Your task to perform on an android device: open app "Facebook" (install if not already installed) Image 0: 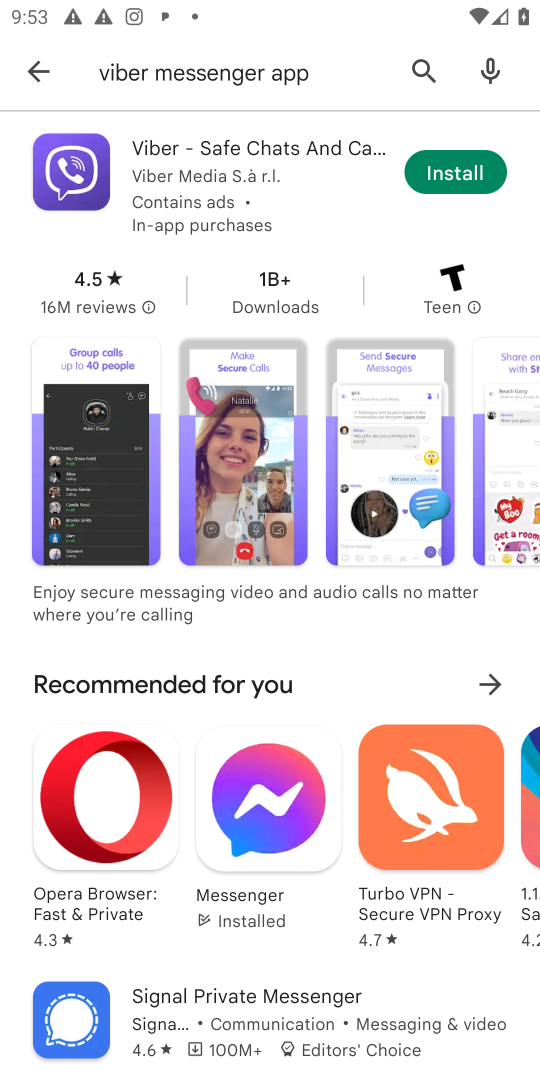
Step 0: press home button
Your task to perform on an android device: open app "Facebook" (install if not already installed) Image 1: 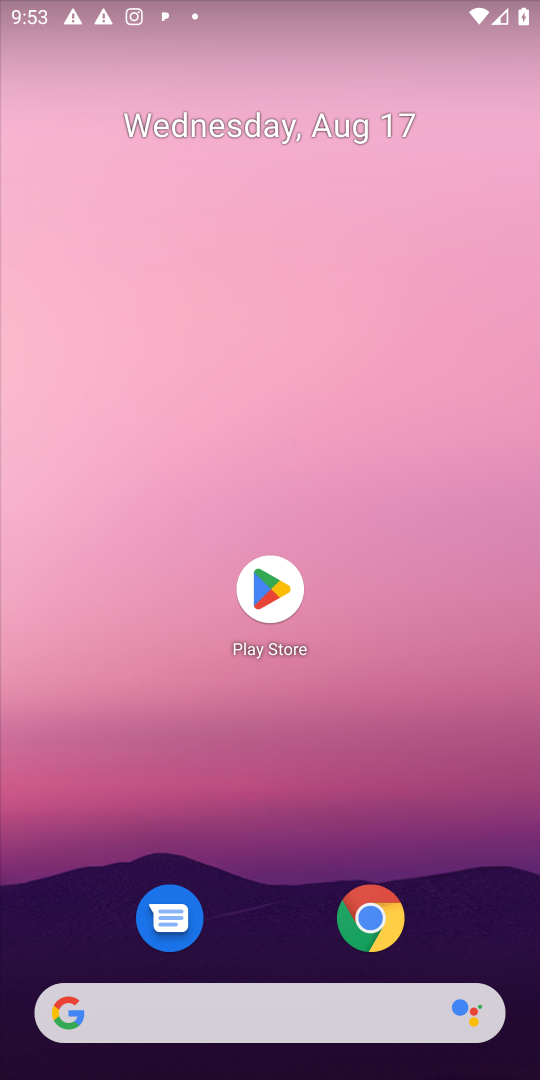
Step 1: click (273, 595)
Your task to perform on an android device: open app "Facebook" (install if not already installed) Image 2: 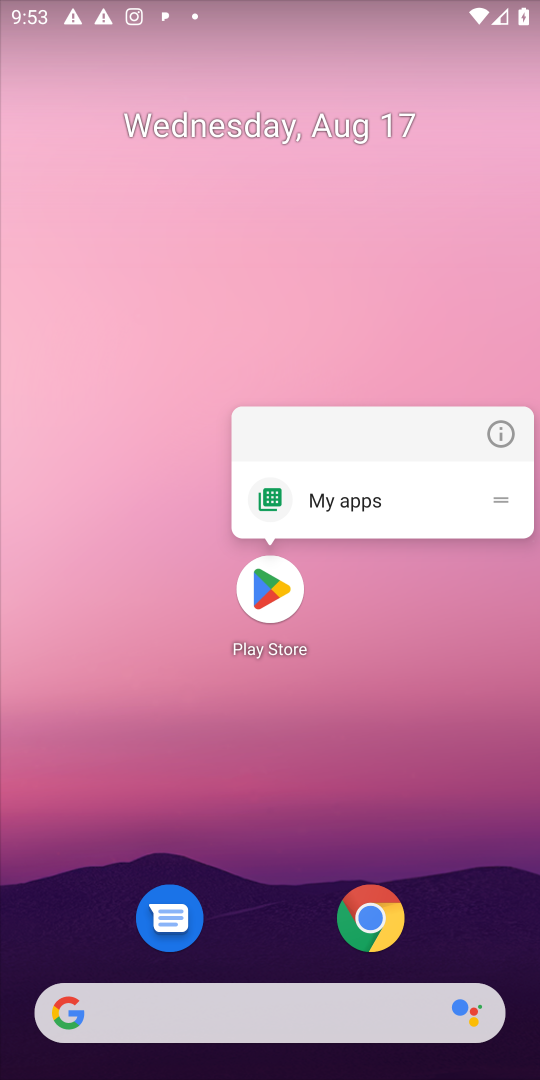
Step 2: click (272, 596)
Your task to perform on an android device: open app "Facebook" (install if not already installed) Image 3: 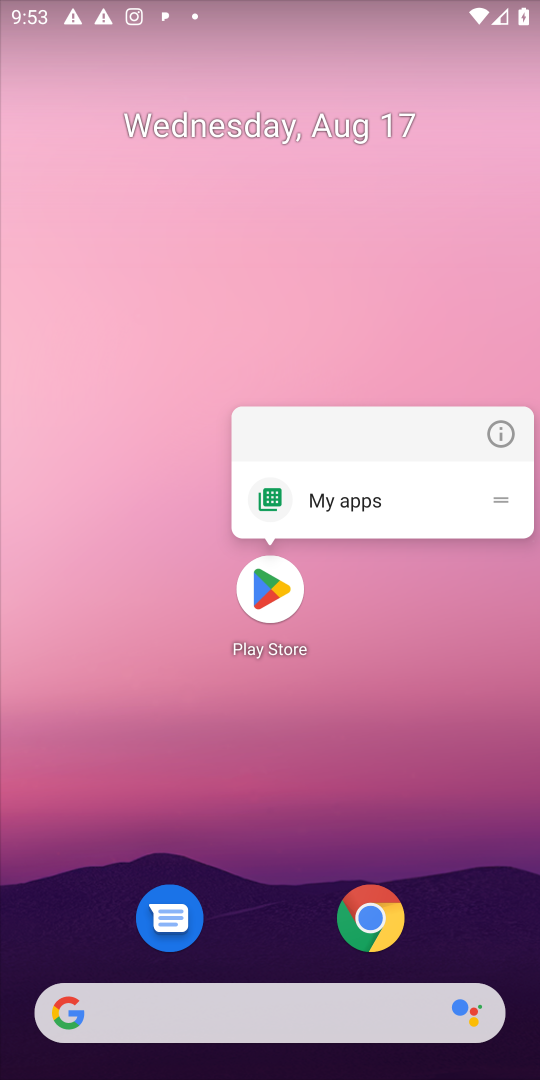
Step 3: click (270, 588)
Your task to perform on an android device: open app "Facebook" (install if not already installed) Image 4: 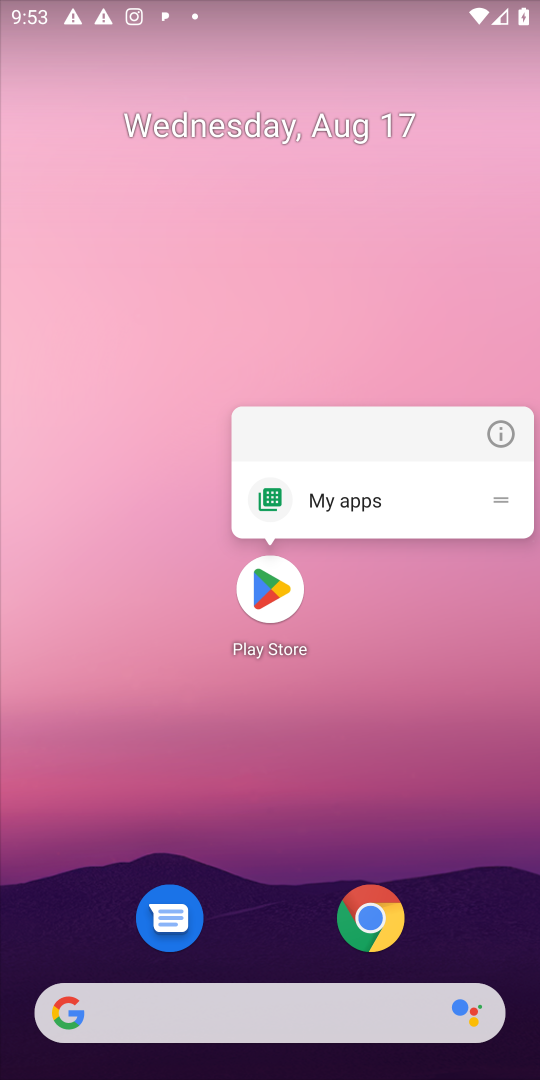
Step 4: click (270, 588)
Your task to perform on an android device: open app "Facebook" (install if not already installed) Image 5: 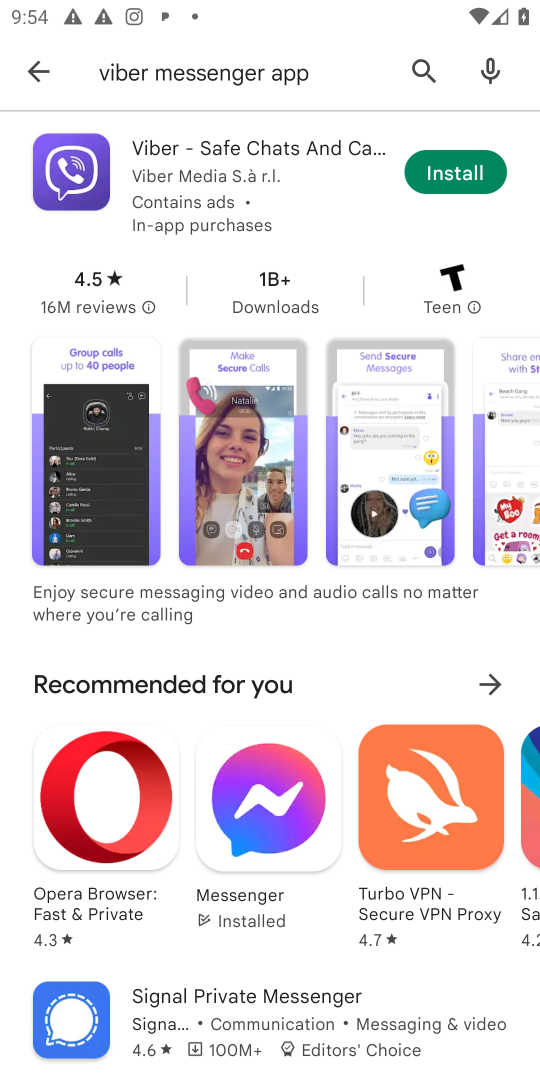
Step 5: click (421, 68)
Your task to perform on an android device: open app "Facebook" (install if not already installed) Image 6: 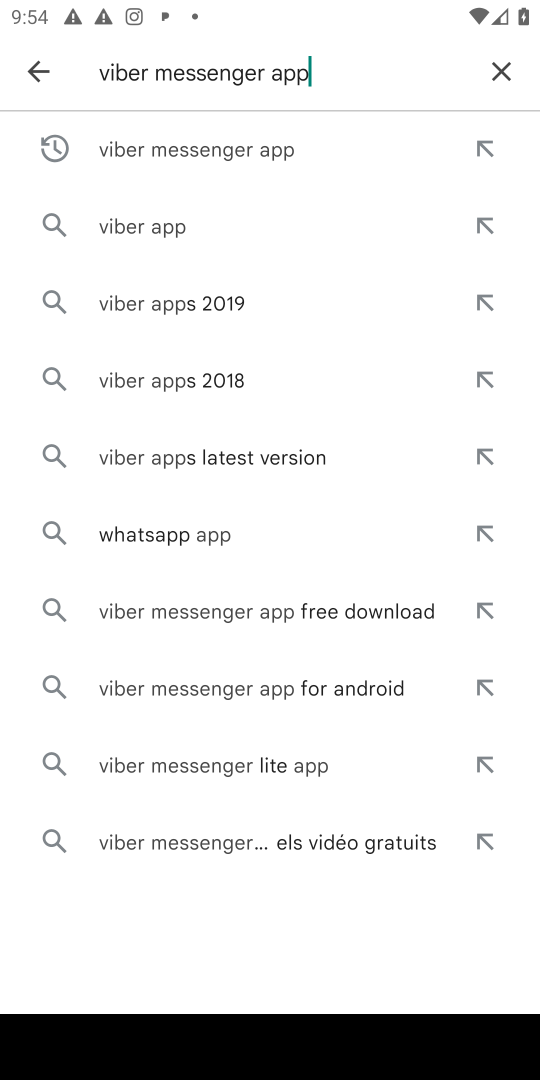
Step 6: click (503, 75)
Your task to perform on an android device: open app "Facebook" (install if not already installed) Image 7: 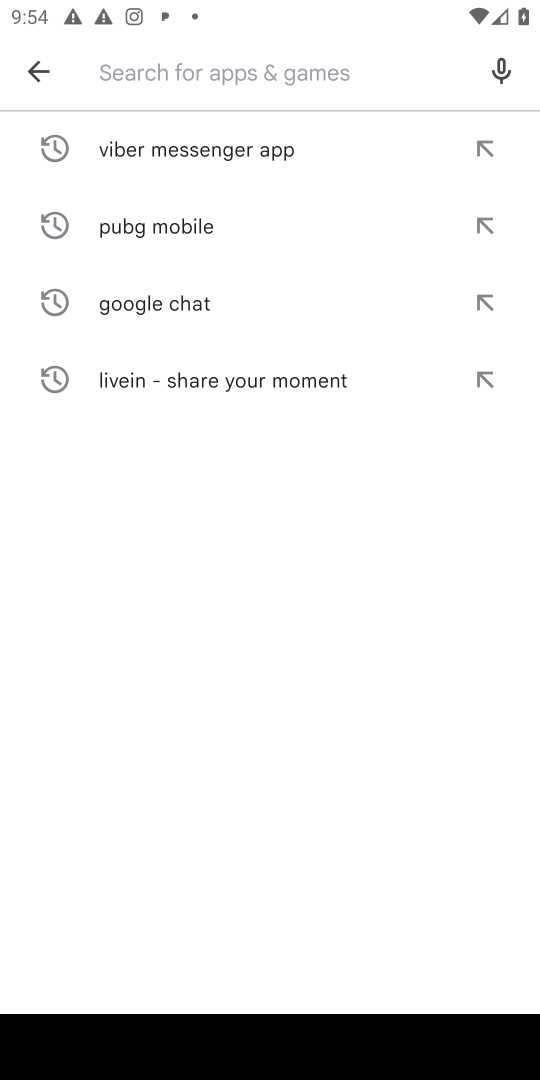
Step 7: type "Facebook"
Your task to perform on an android device: open app "Facebook" (install if not already installed) Image 8: 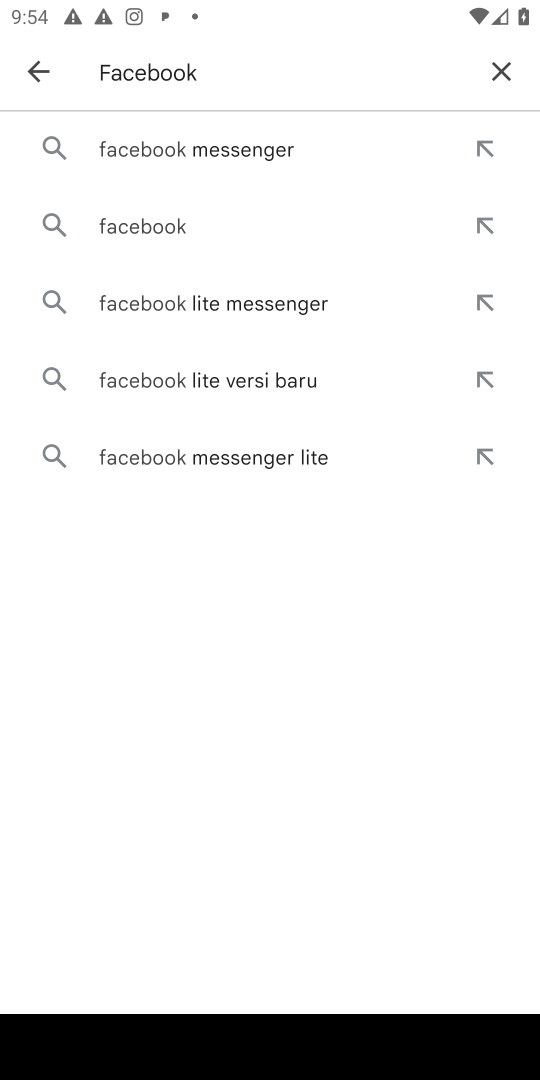
Step 8: click (267, 150)
Your task to perform on an android device: open app "Facebook" (install if not already installed) Image 9: 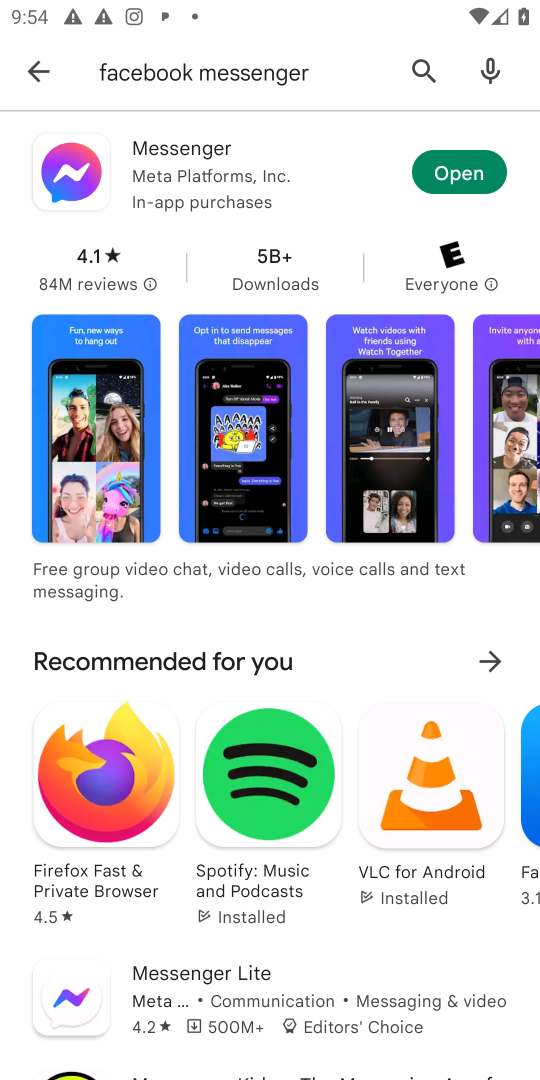
Step 9: click (466, 170)
Your task to perform on an android device: open app "Facebook" (install if not already installed) Image 10: 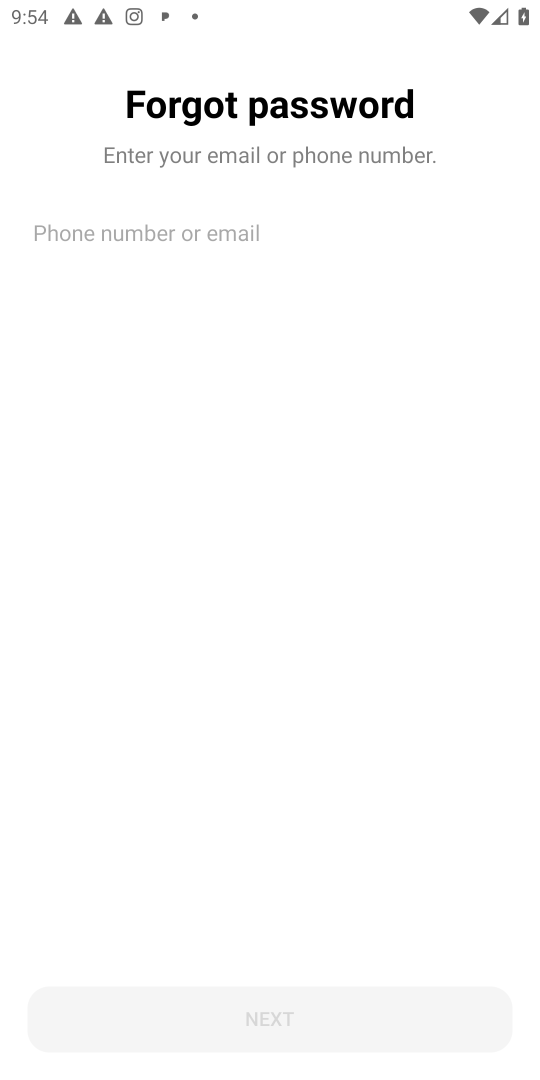
Step 10: task complete